Your task to perform on an android device: Where can I buy a nice beach tent? Image 0: 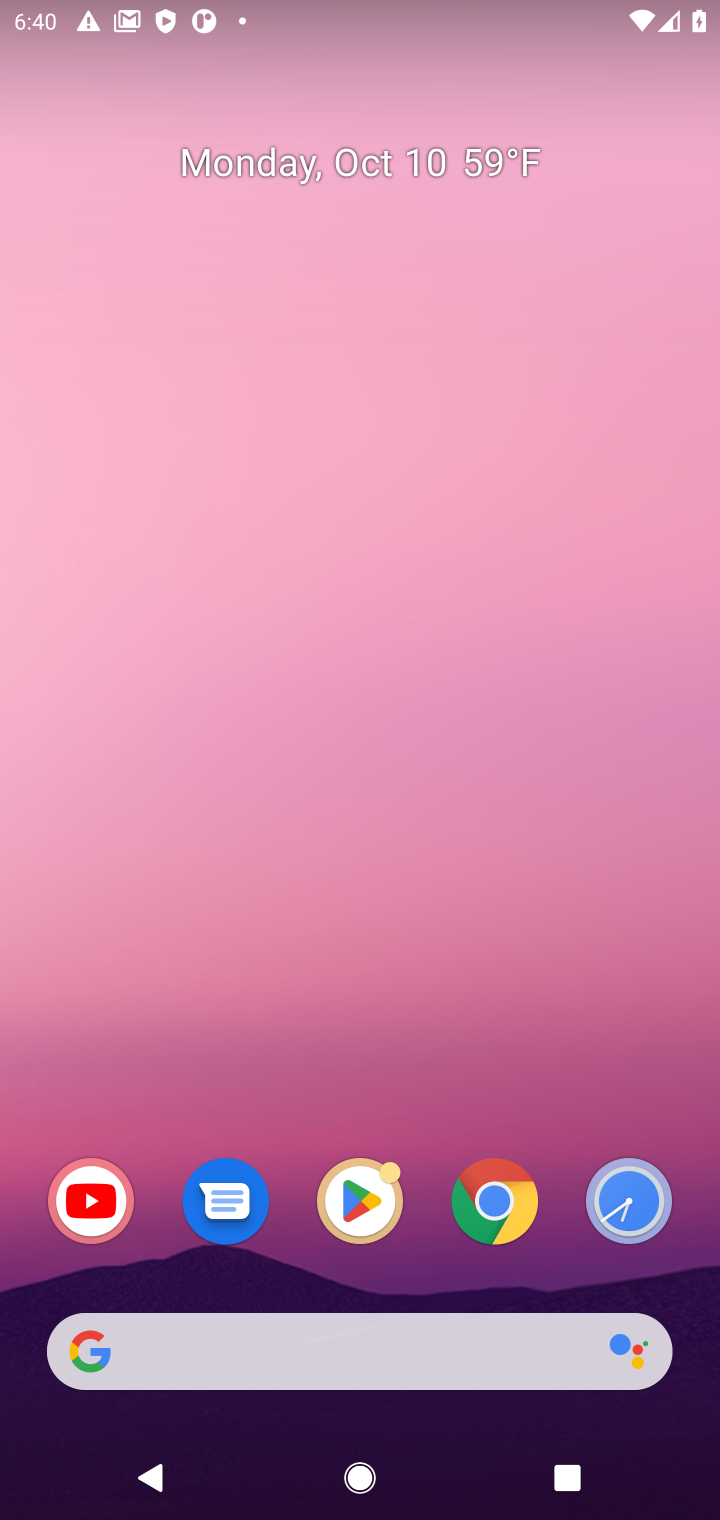
Step 0: drag from (254, 737) to (274, 244)
Your task to perform on an android device: Where can I buy a nice beach tent? Image 1: 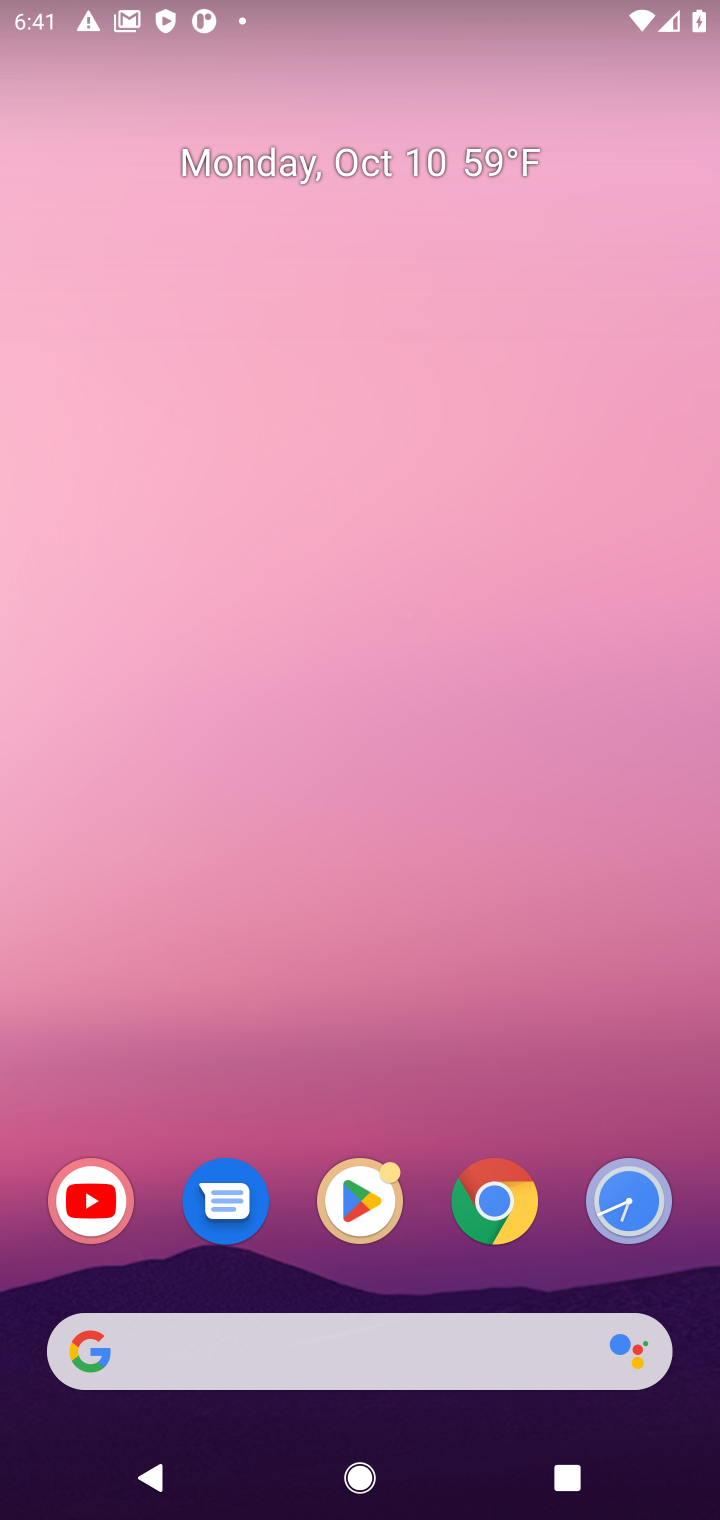
Step 1: drag from (378, 1031) to (454, 155)
Your task to perform on an android device: Where can I buy a nice beach tent? Image 2: 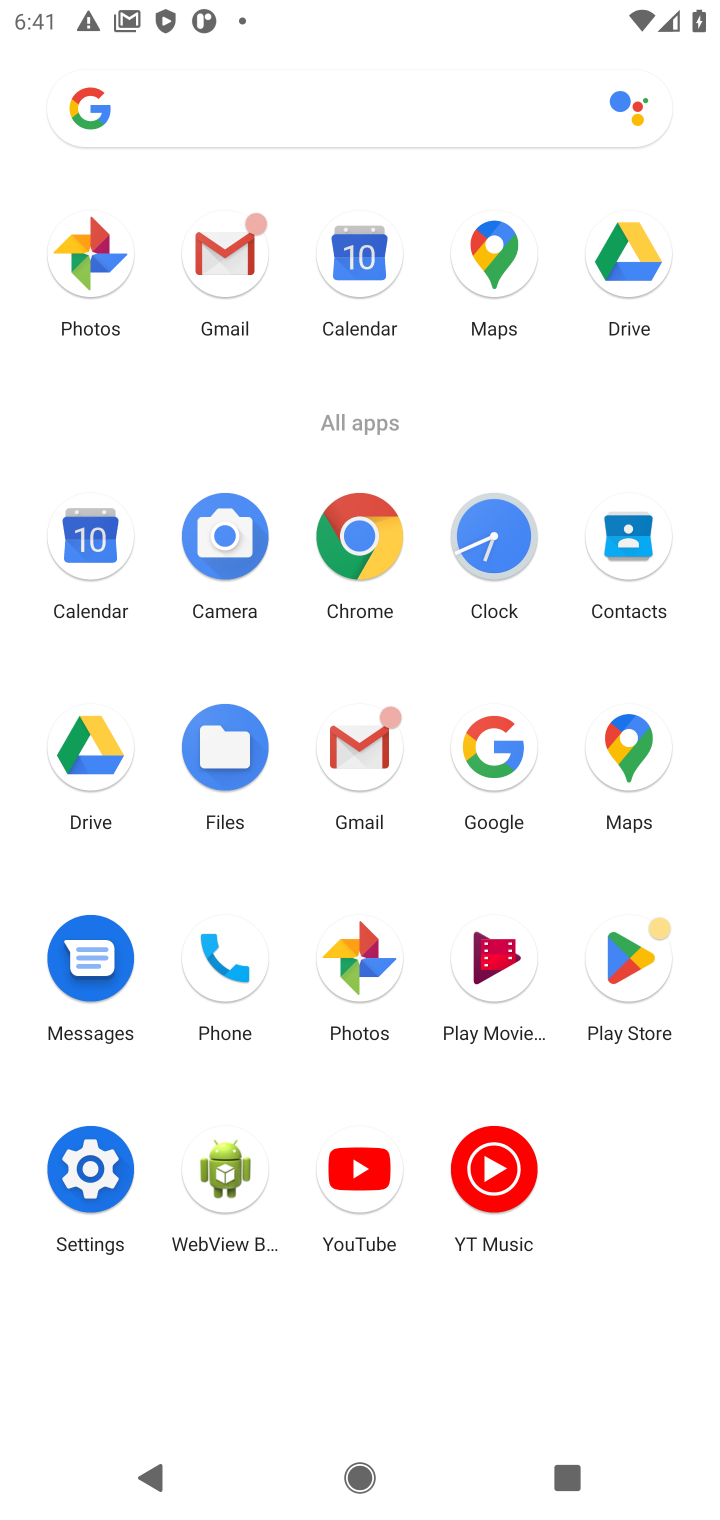
Step 2: click (492, 761)
Your task to perform on an android device: Where can I buy a nice beach tent? Image 3: 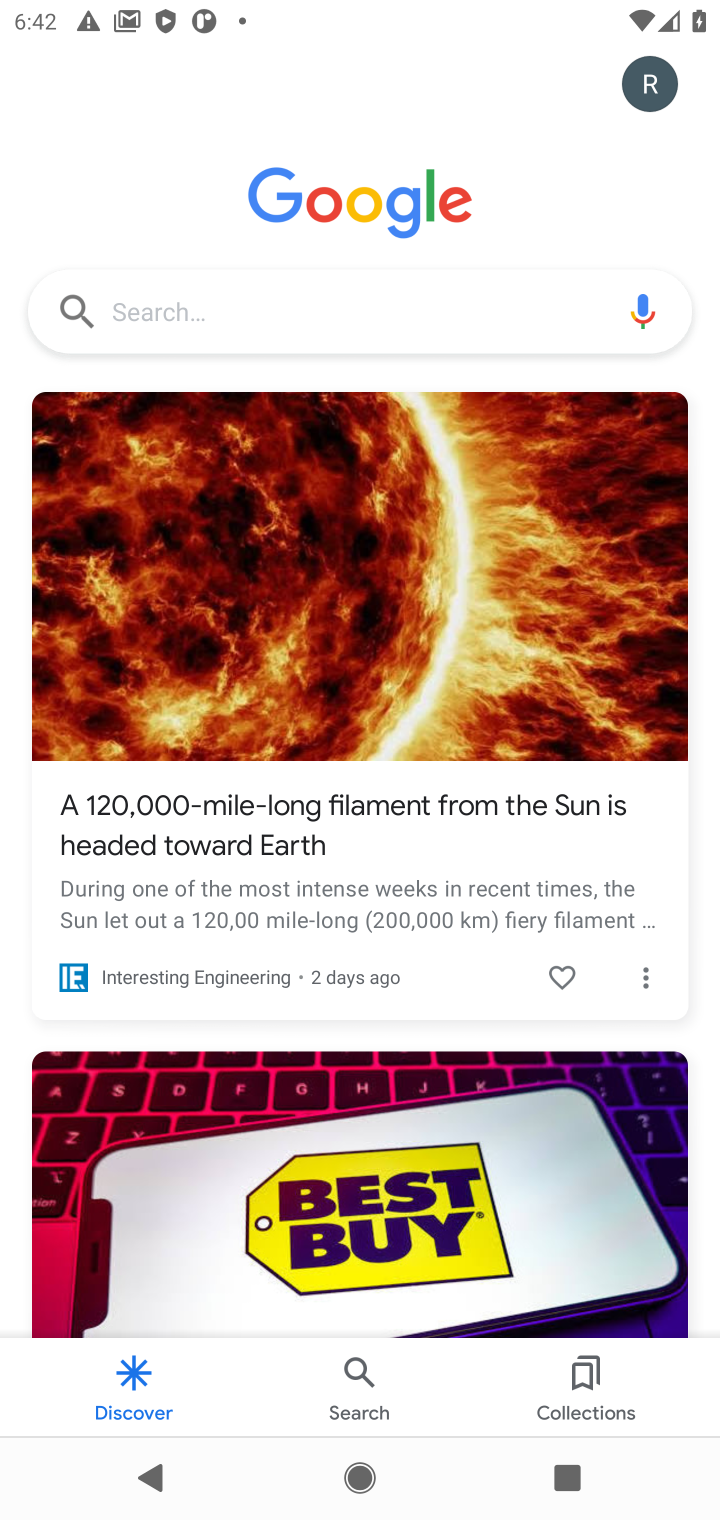
Step 3: click (267, 312)
Your task to perform on an android device: Where can I buy a nice beach tent? Image 4: 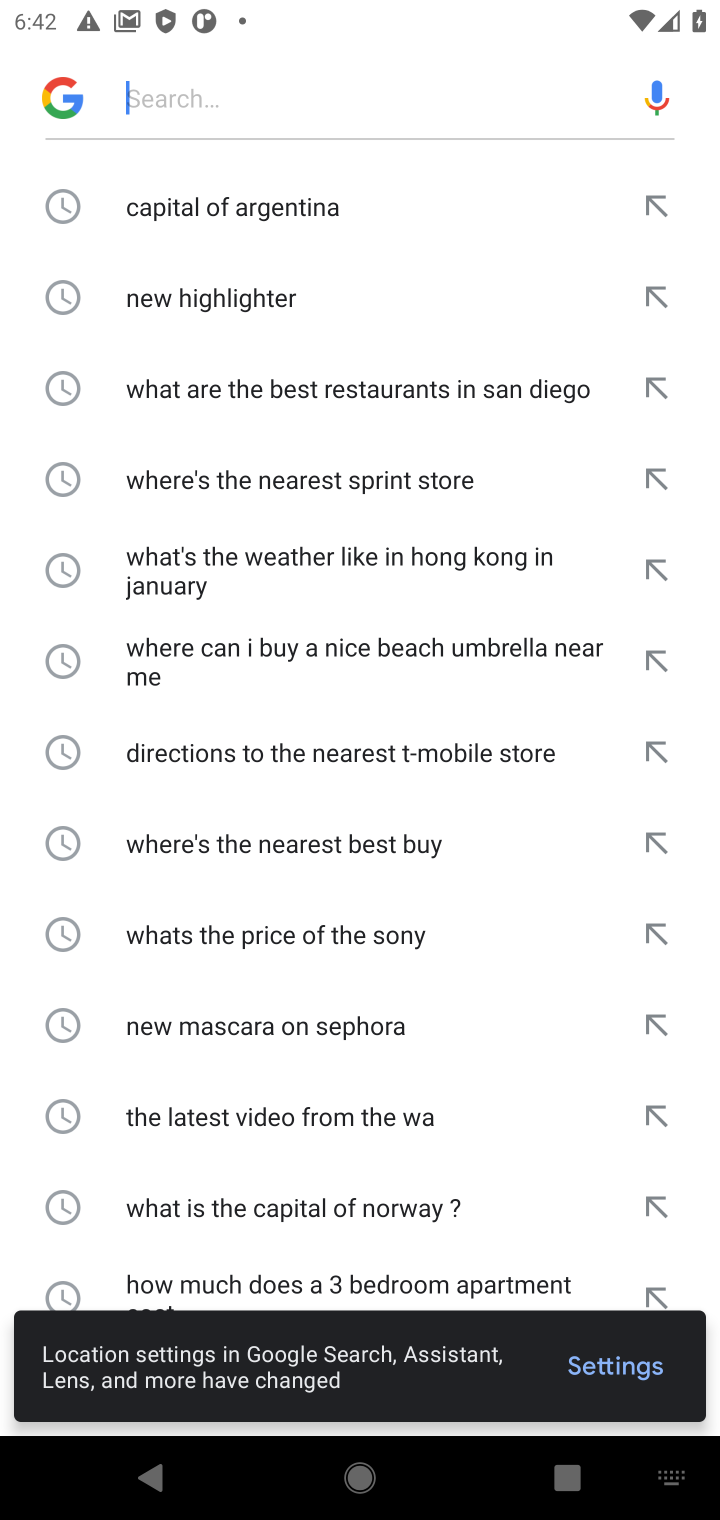
Step 4: type "Where can I buy a nice beach tent?"
Your task to perform on an android device: Where can I buy a nice beach tent? Image 5: 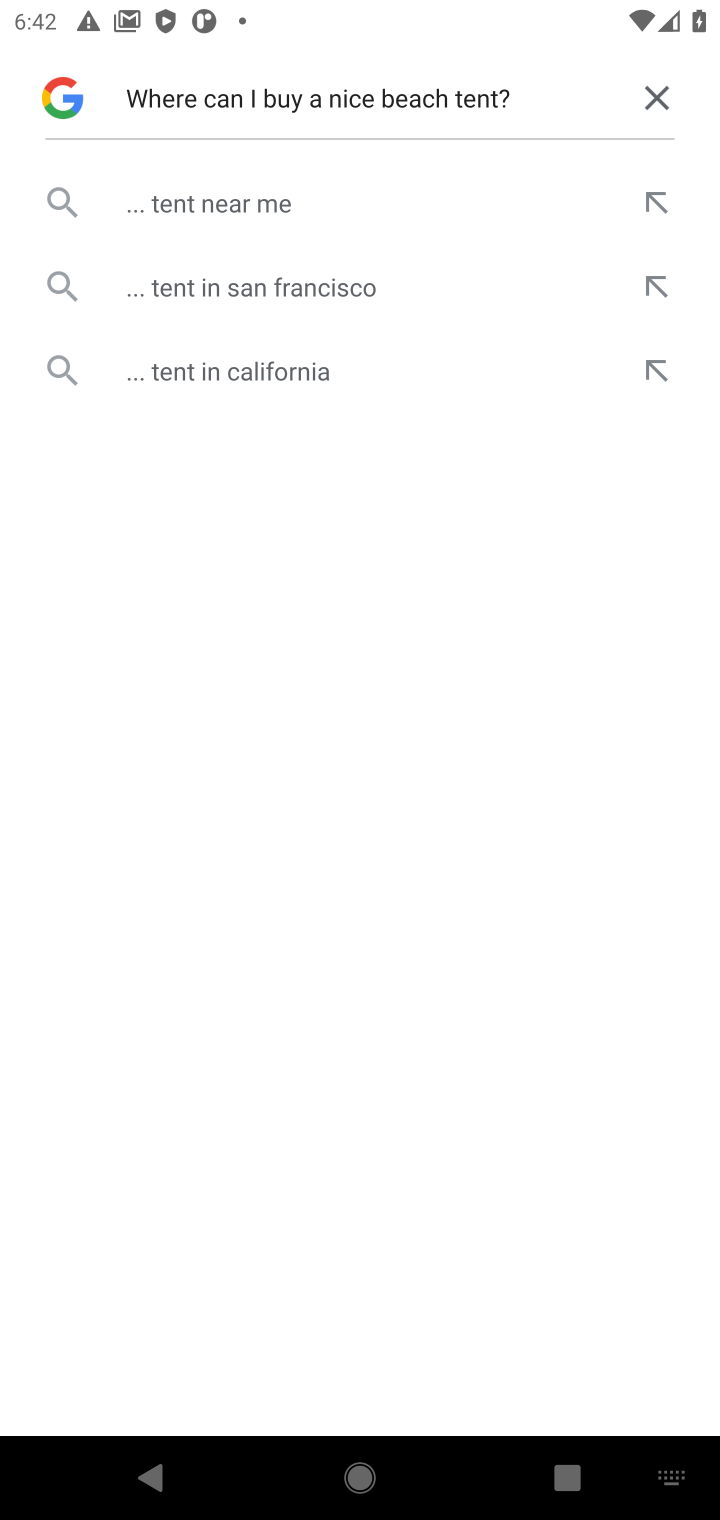
Step 5: click (167, 206)
Your task to perform on an android device: Where can I buy a nice beach tent? Image 6: 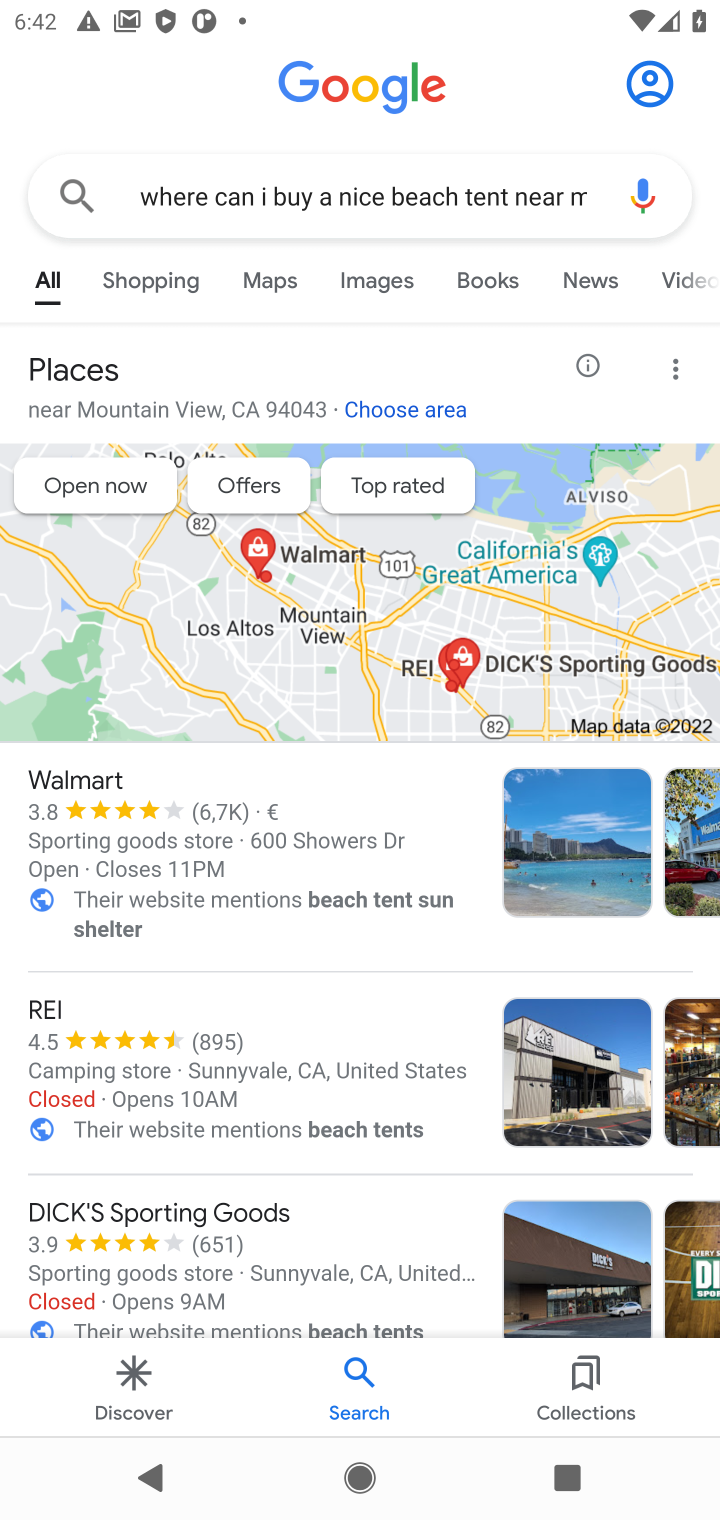
Step 6: task complete